Your task to perform on an android device: change text size in settings app Image 0: 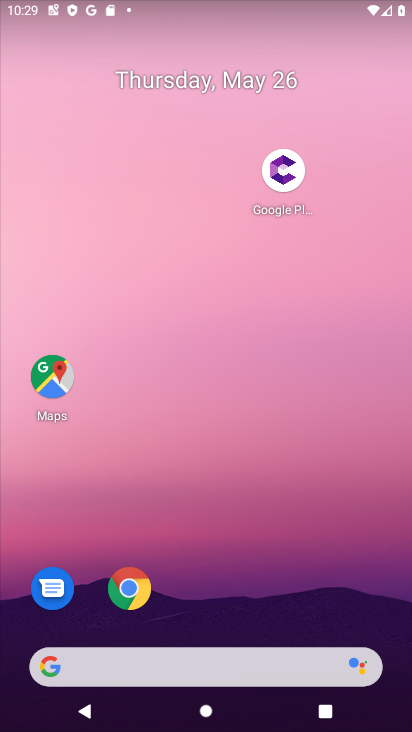
Step 0: press back button
Your task to perform on an android device: change text size in settings app Image 1: 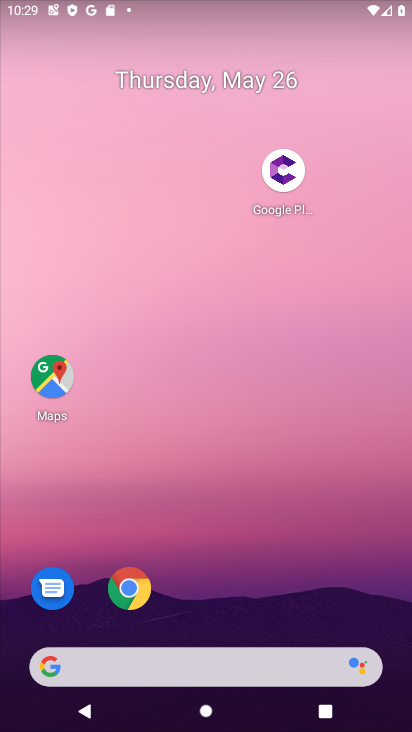
Step 1: drag from (279, 579) to (407, 526)
Your task to perform on an android device: change text size in settings app Image 2: 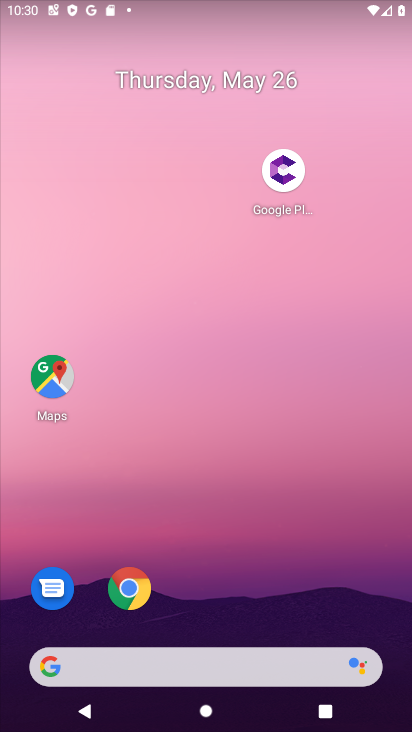
Step 2: click (126, 221)
Your task to perform on an android device: change text size in settings app Image 3: 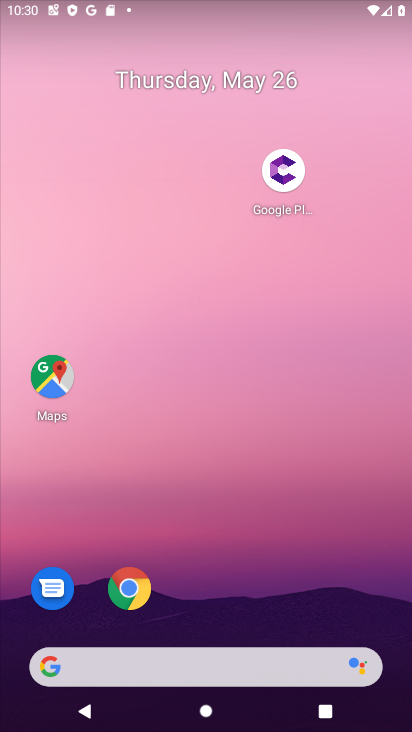
Step 3: click (126, 221)
Your task to perform on an android device: change text size in settings app Image 4: 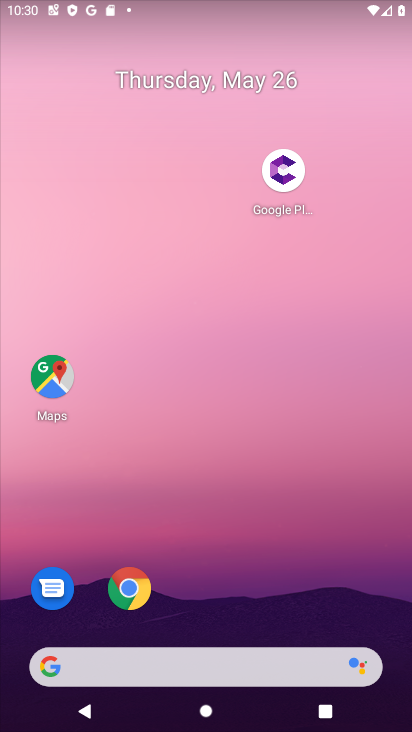
Step 4: drag from (176, 358) to (149, 195)
Your task to perform on an android device: change text size in settings app Image 5: 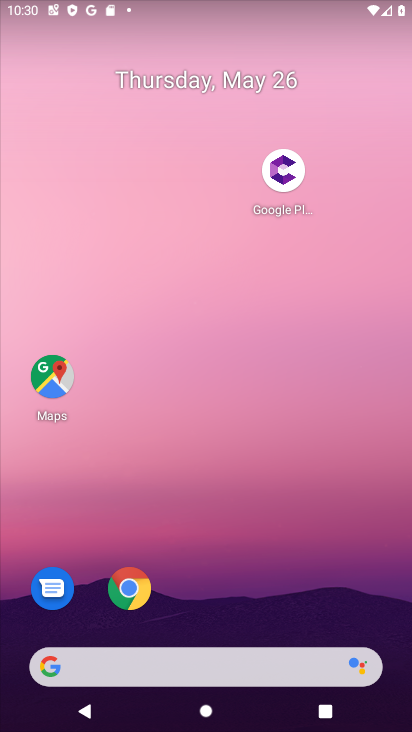
Step 5: drag from (242, 628) to (169, 248)
Your task to perform on an android device: change text size in settings app Image 6: 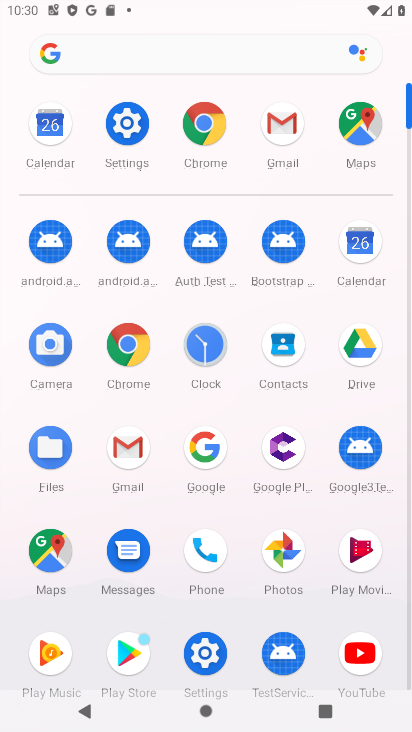
Step 6: drag from (163, 244) to (140, 81)
Your task to perform on an android device: change text size in settings app Image 7: 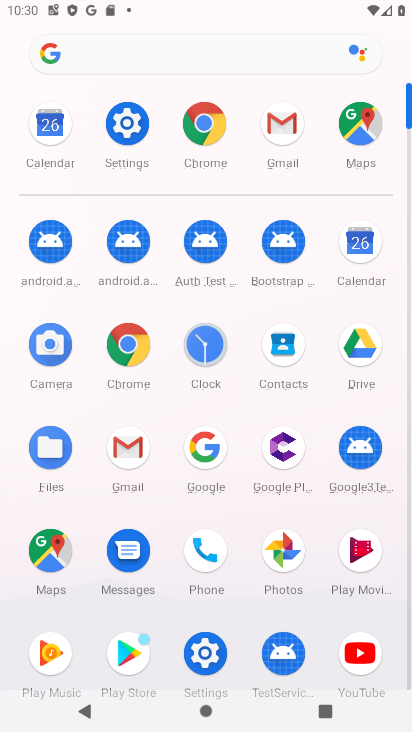
Step 7: click (139, 23)
Your task to perform on an android device: change text size in settings app Image 8: 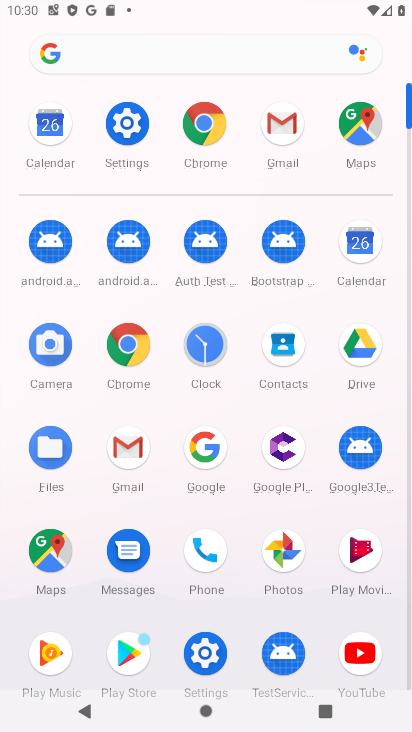
Step 8: drag from (176, 226) to (153, 65)
Your task to perform on an android device: change text size in settings app Image 9: 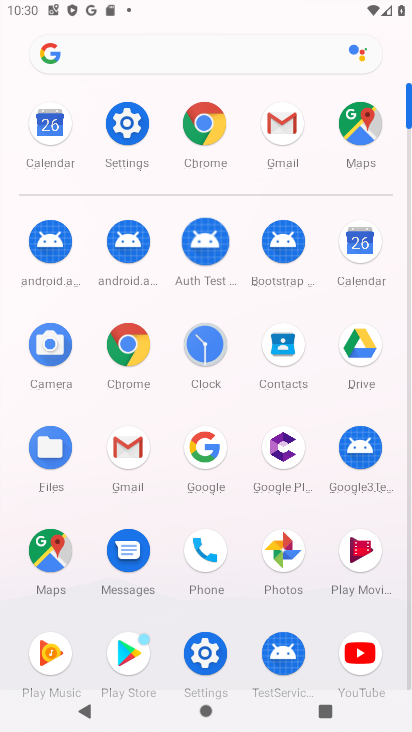
Step 9: drag from (188, 28) to (195, 150)
Your task to perform on an android device: change text size in settings app Image 10: 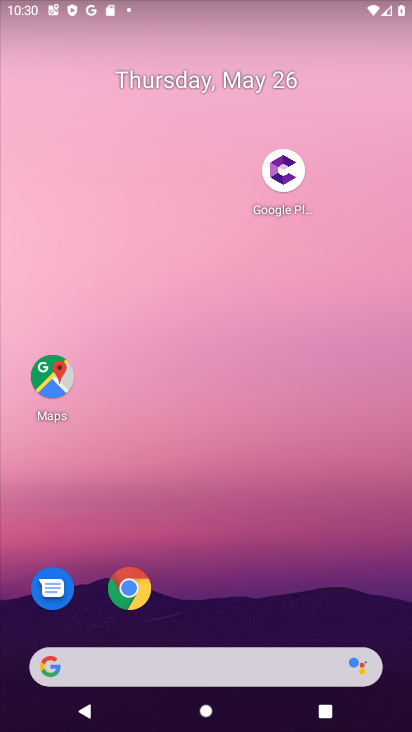
Step 10: click (207, 326)
Your task to perform on an android device: change text size in settings app Image 11: 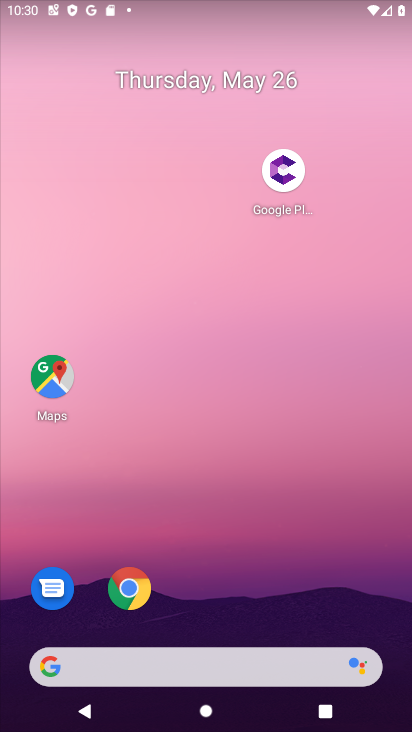
Step 11: drag from (242, 583) to (130, 129)
Your task to perform on an android device: change text size in settings app Image 12: 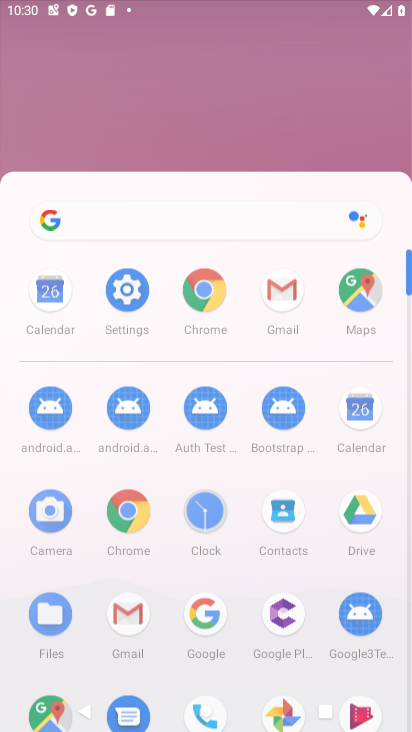
Step 12: drag from (265, 598) to (156, 136)
Your task to perform on an android device: change text size in settings app Image 13: 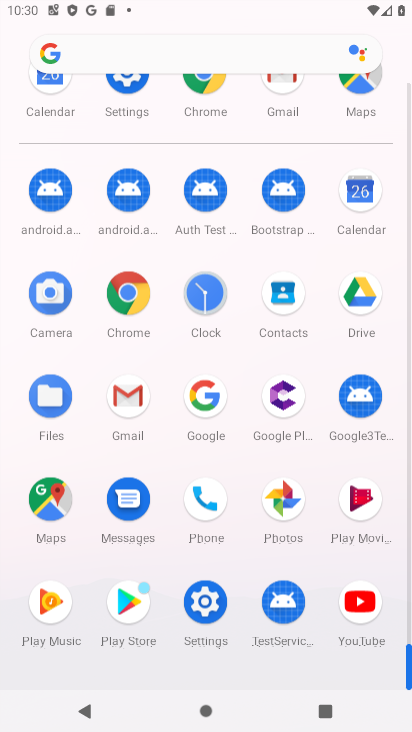
Step 13: drag from (268, 500) to (202, 37)
Your task to perform on an android device: change text size in settings app Image 14: 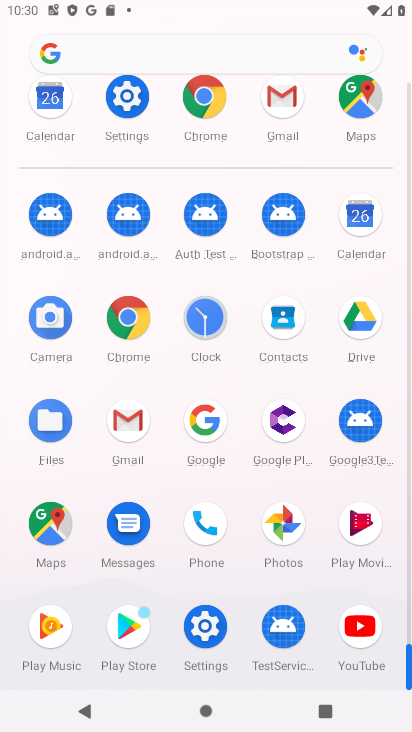
Step 14: click (127, 122)
Your task to perform on an android device: change text size in settings app Image 15: 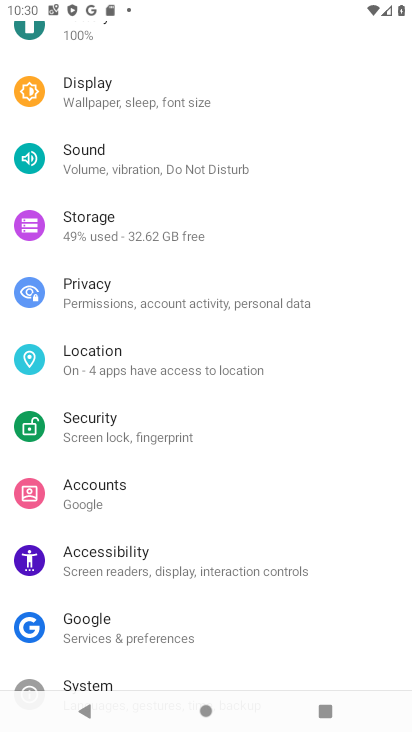
Step 15: click (126, 101)
Your task to perform on an android device: change text size in settings app Image 16: 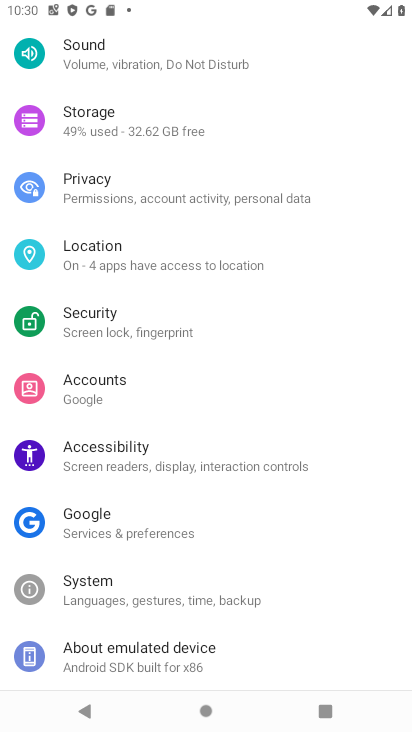
Step 16: click (126, 100)
Your task to perform on an android device: change text size in settings app Image 17: 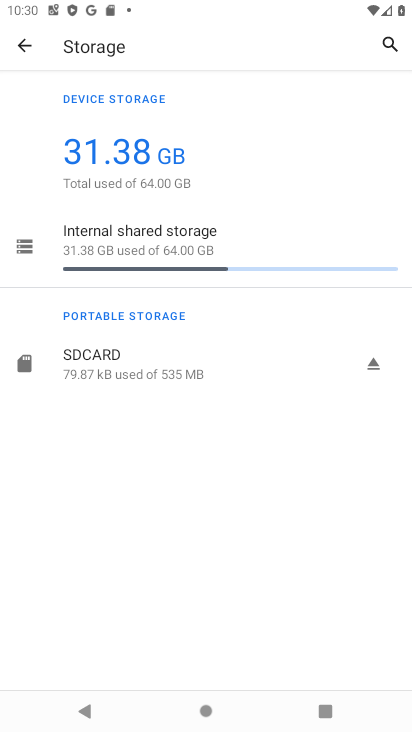
Step 17: click (127, 99)
Your task to perform on an android device: change text size in settings app Image 18: 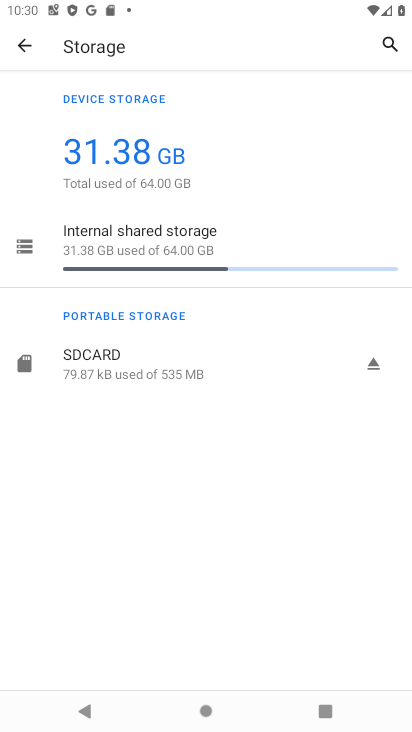
Step 18: click (27, 46)
Your task to perform on an android device: change text size in settings app Image 19: 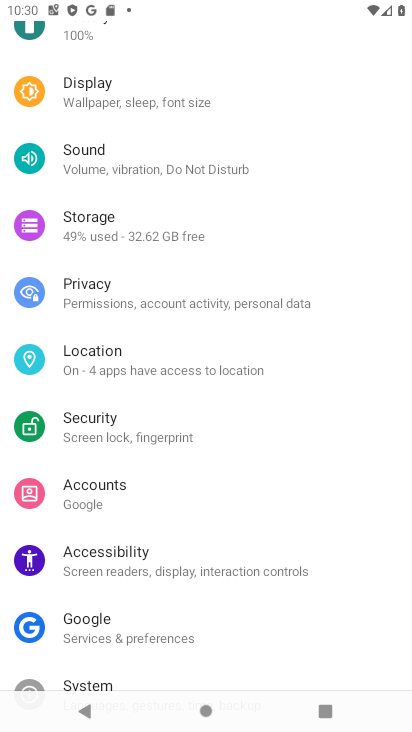
Step 19: click (130, 97)
Your task to perform on an android device: change text size in settings app Image 20: 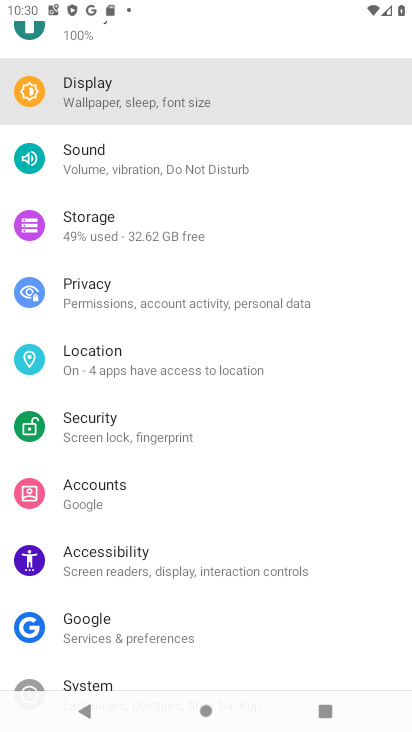
Step 20: click (130, 97)
Your task to perform on an android device: change text size in settings app Image 21: 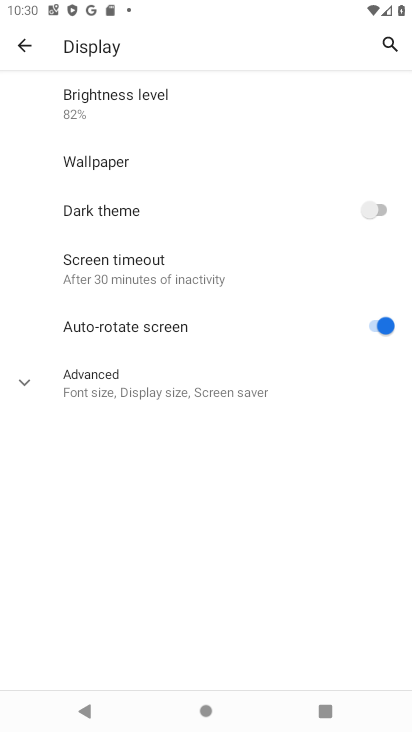
Step 21: click (130, 97)
Your task to perform on an android device: change text size in settings app Image 22: 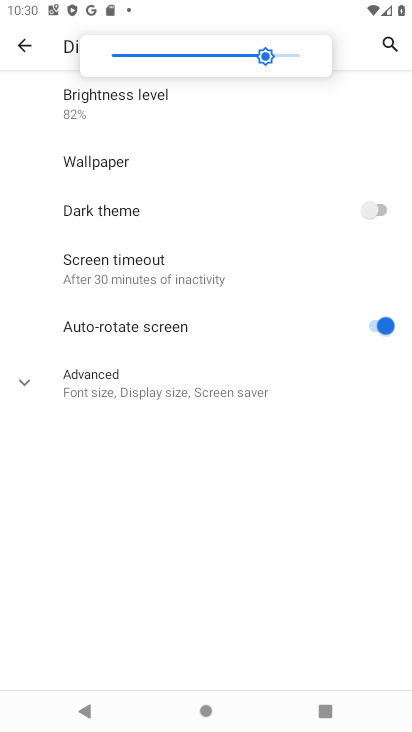
Step 22: click (248, 220)
Your task to perform on an android device: change text size in settings app Image 23: 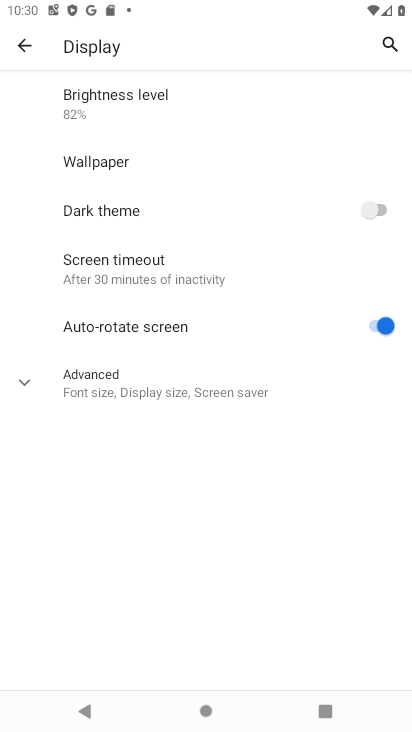
Step 23: task complete